Your task to perform on an android device: Open Yahoo.com Image 0: 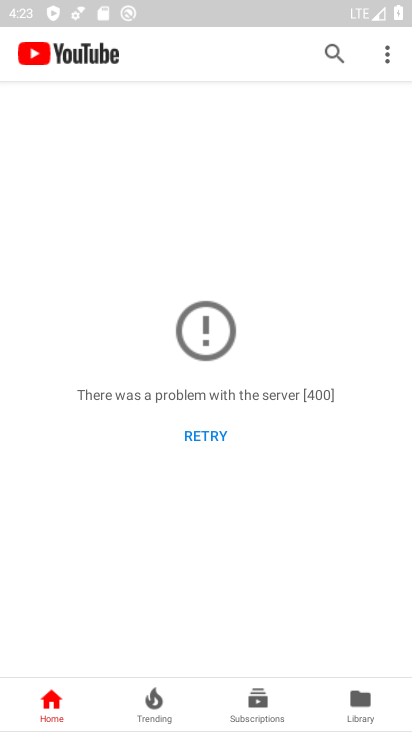
Step 0: press home button
Your task to perform on an android device: Open Yahoo.com Image 1: 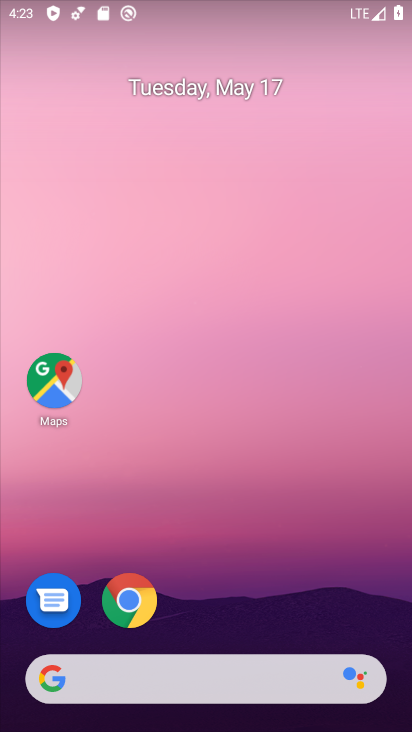
Step 1: click (131, 600)
Your task to perform on an android device: Open Yahoo.com Image 2: 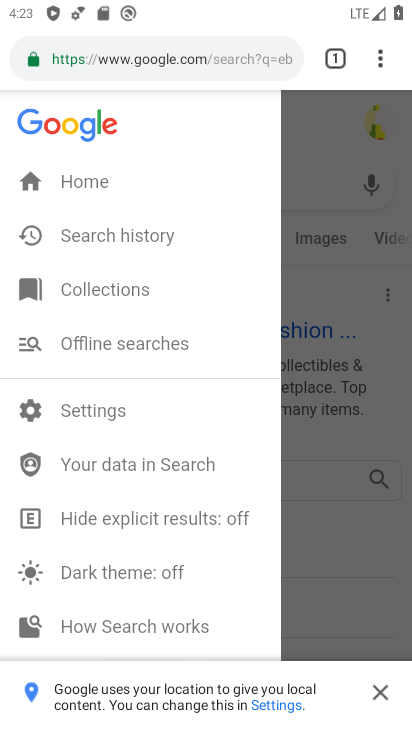
Step 2: click (179, 63)
Your task to perform on an android device: Open Yahoo.com Image 3: 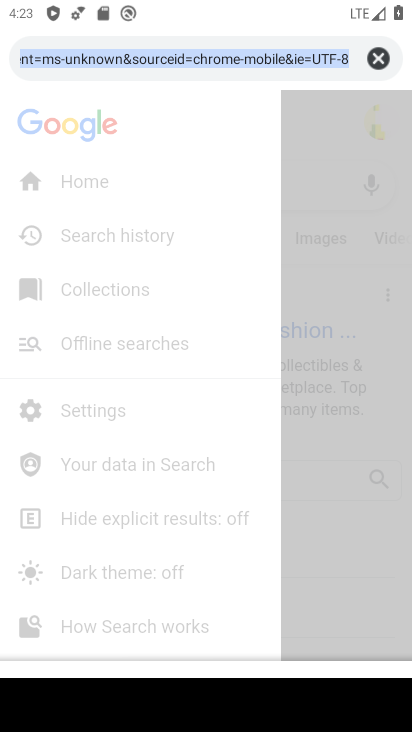
Step 3: click (379, 58)
Your task to perform on an android device: Open Yahoo.com Image 4: 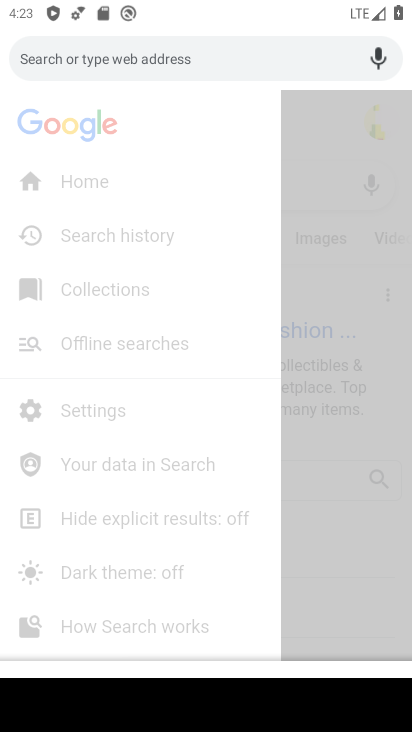
Step 4: type "yahoo.com"
Your task to perform on an android device: Open Yahoo.com Image 5: 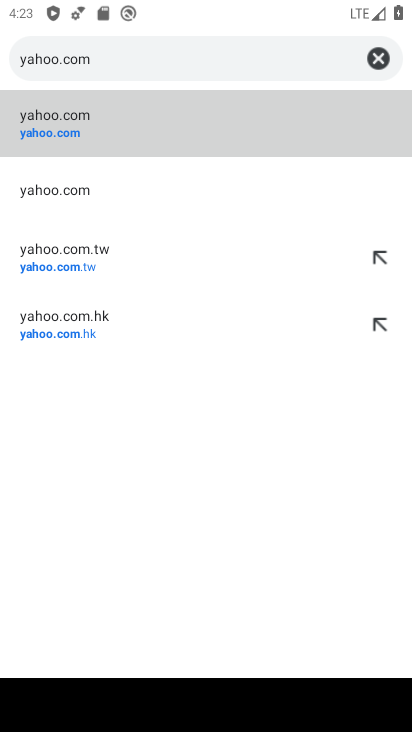
Step 5: click (64, 111)
Your task to perform on an android device: Open Yahoo.com Image 6: 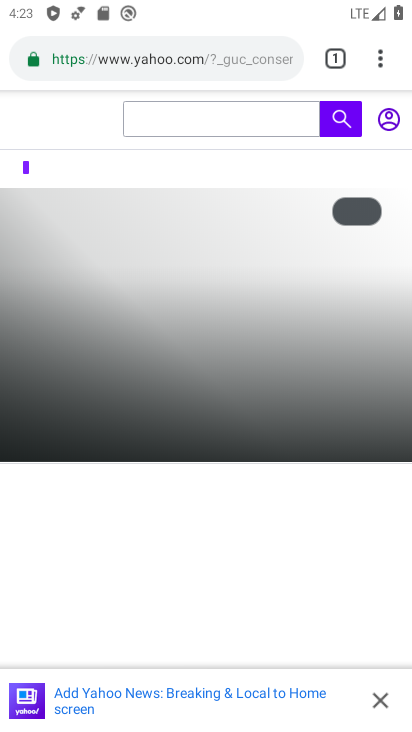
Step 6: task complete